Your task to perform on an android device: Search for "macbook pro 13 inch" on ebay.com, select the first entry, add it to the cart, then select checkout. Image 0: 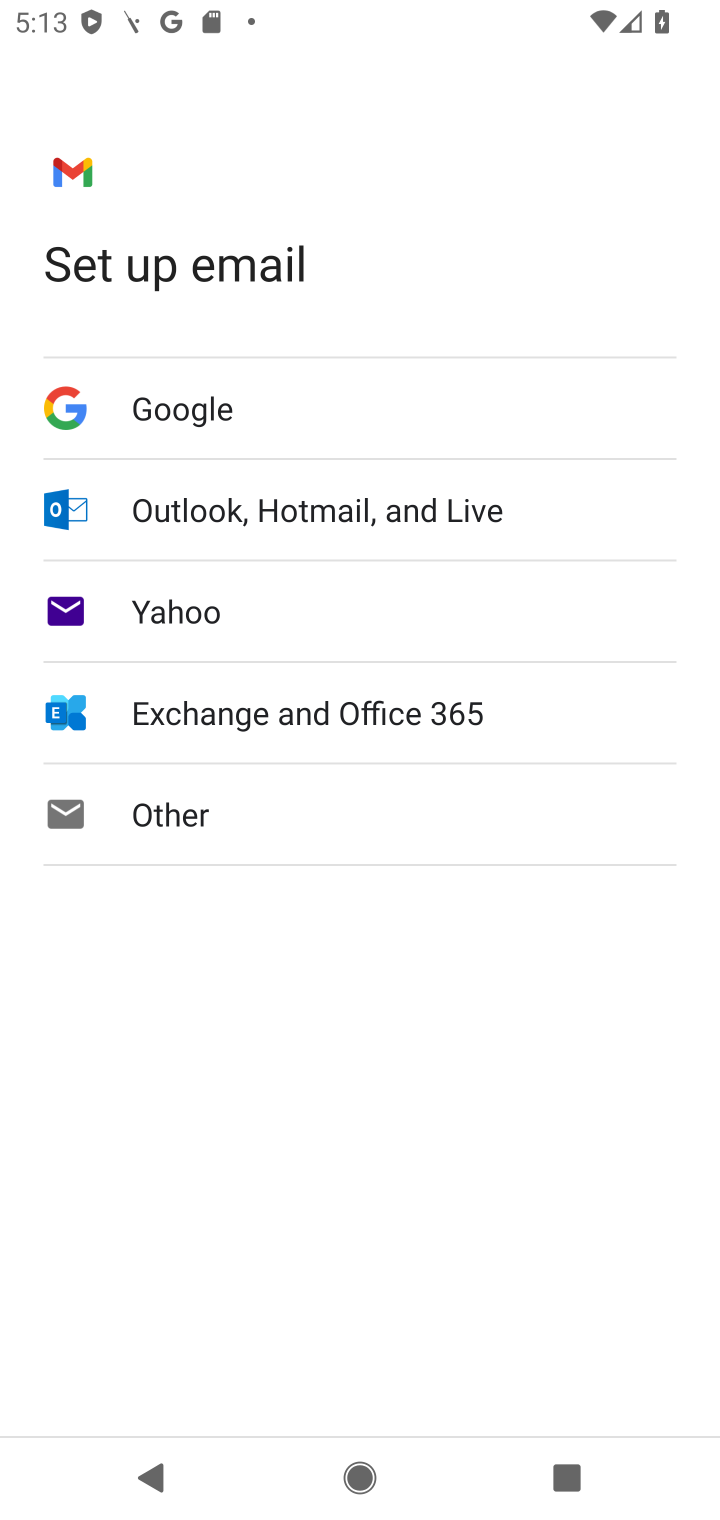
Step 0: press home button
Your task to perform on an android device: Search for "macbook pro 13 inch" on ebay.com, select the first entry, add it to the cart, then select checkout. Image 1: 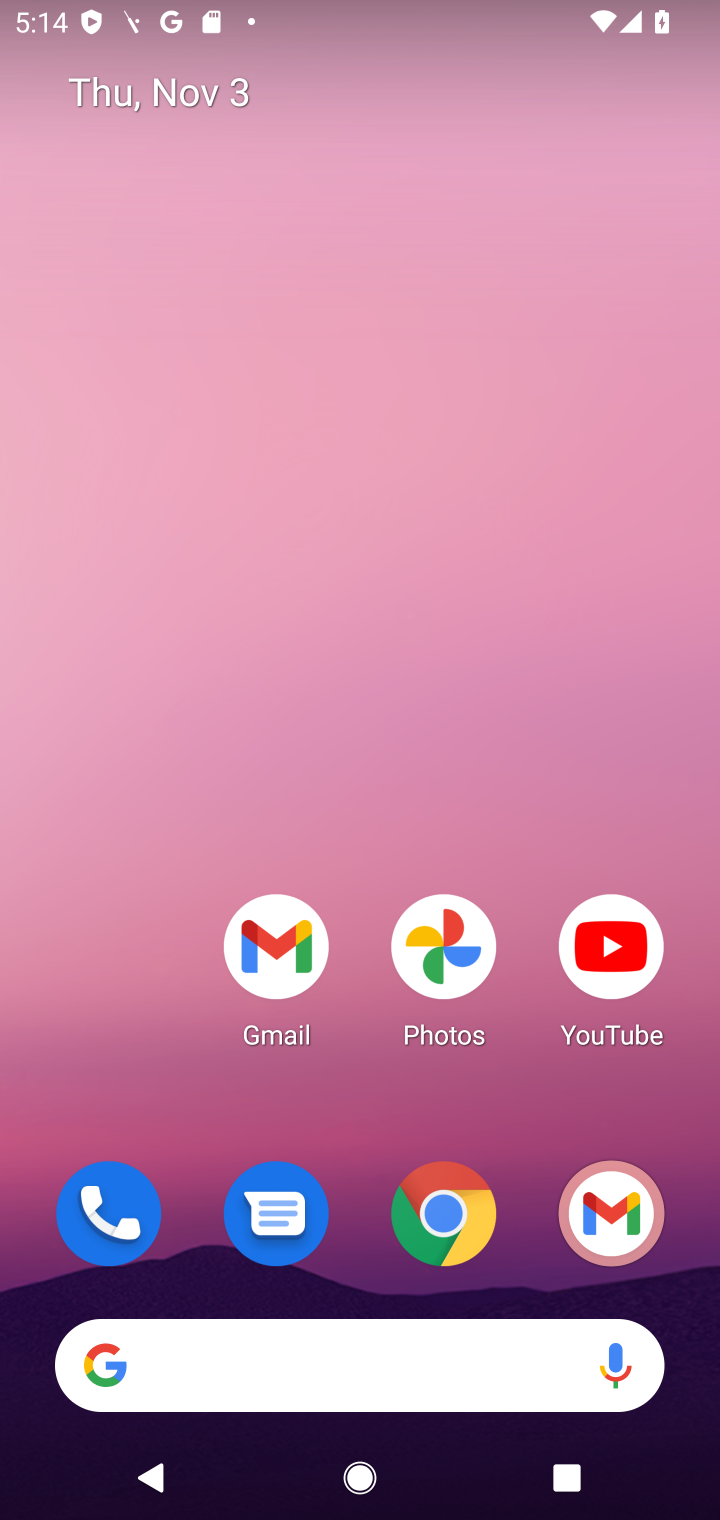
Step 1: click (439, 1205)
Your task to perform on an android device: Search for "macbook pro 13 inch" on ebay.com, select the first entry, add it to the cart, then select checkout. Image 2: 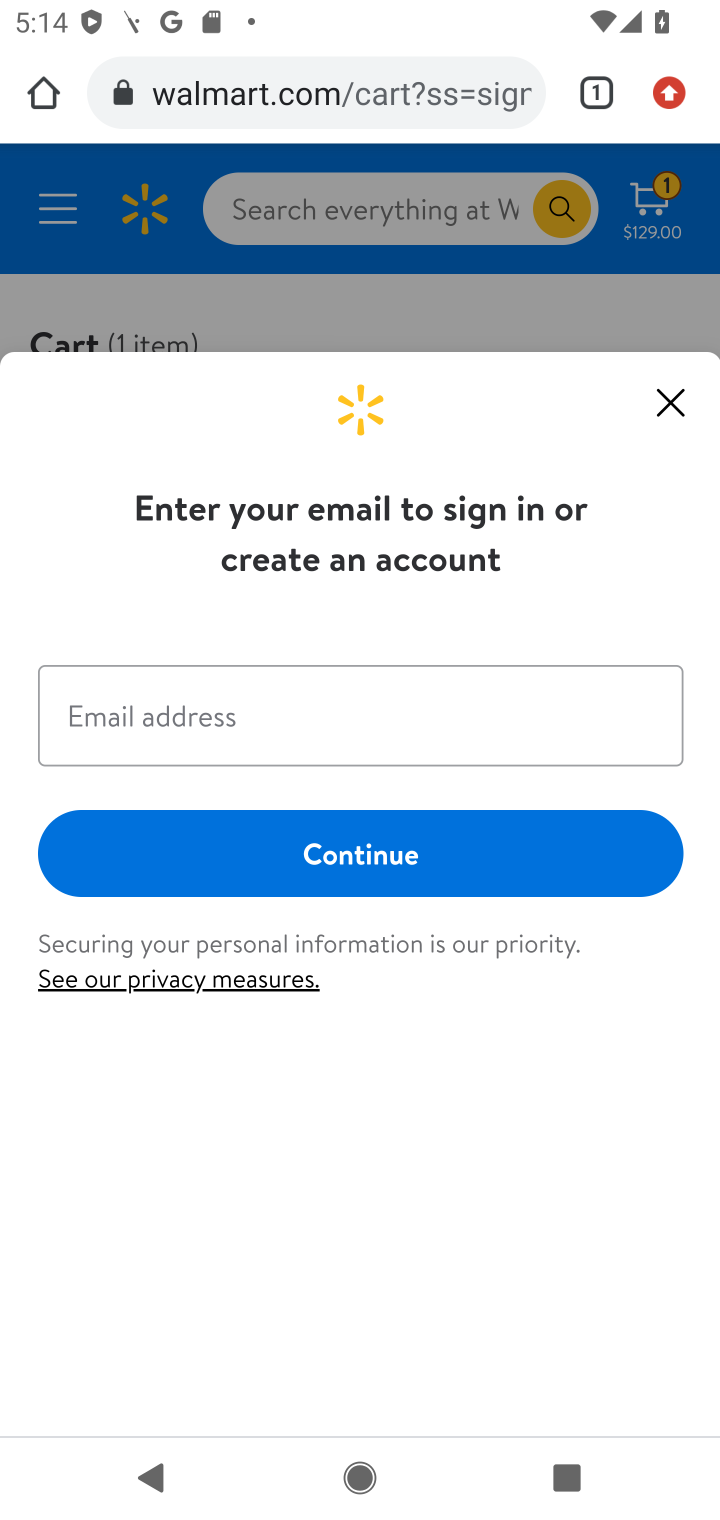
Step 2: click (323, 103)
Your task to perform on an android device: Search for "macbook pro 13 inch" on ebay.com, select the first entry, add it to the cart, then select checkout. Image 3: 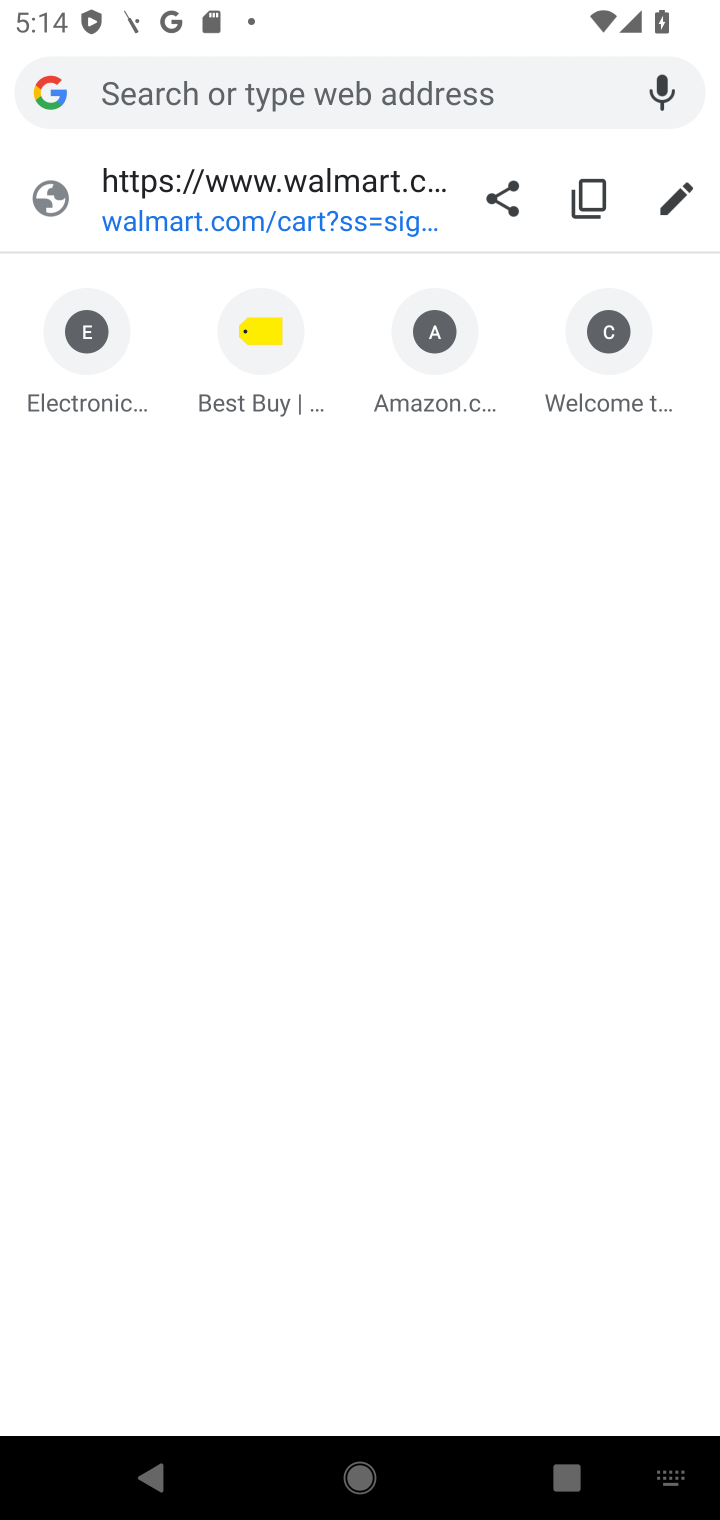
Step 3: type "ebay.com"
Your task to perform on an android device: Search for "macbook pro 13 inch" on ebay.com, select the first entry, add it to the cart, then select checkout. Image 4: 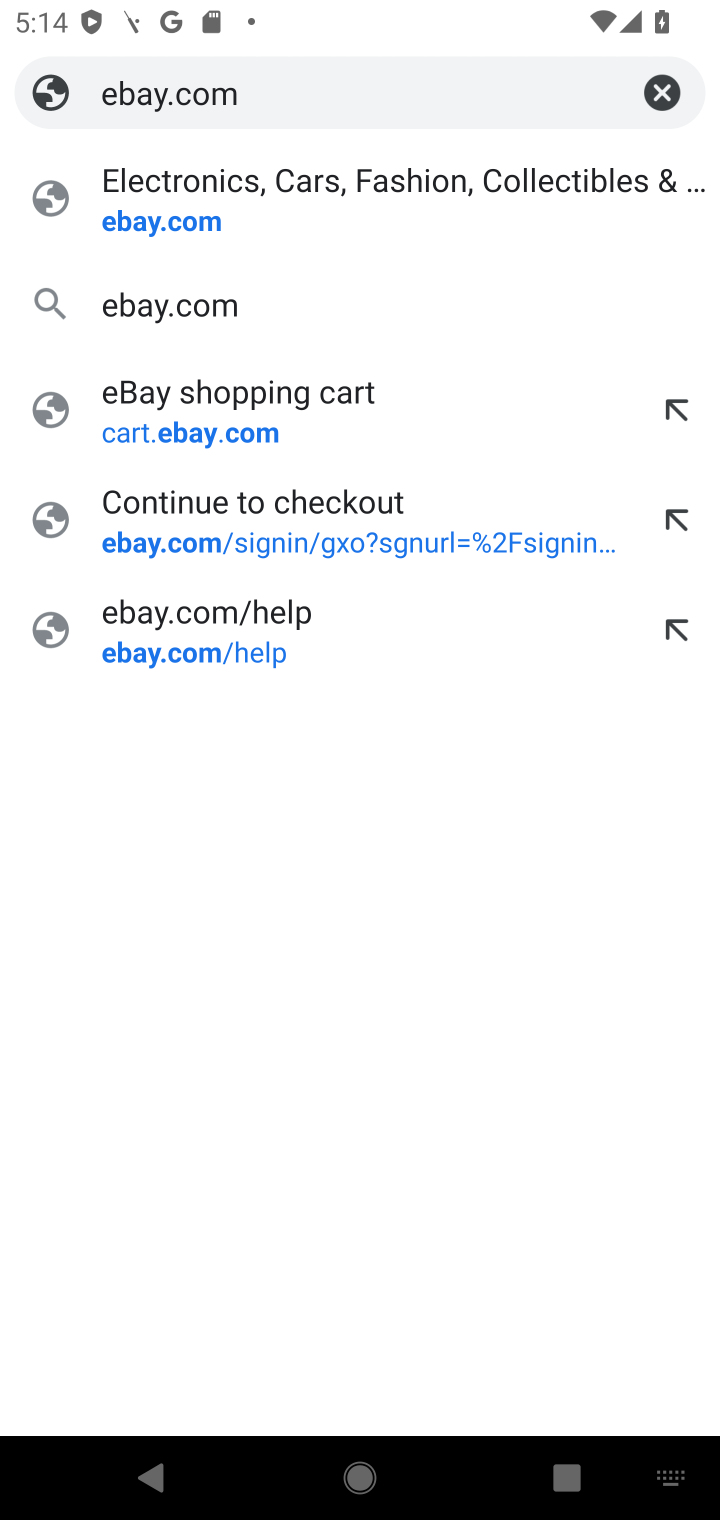
Step 4: click (155, 216)
Your task to perform on an android device: Search for "macbook pro 13 inch" on ebay.com, select the first entry, add it to the cart, then select checkout. Image 5: 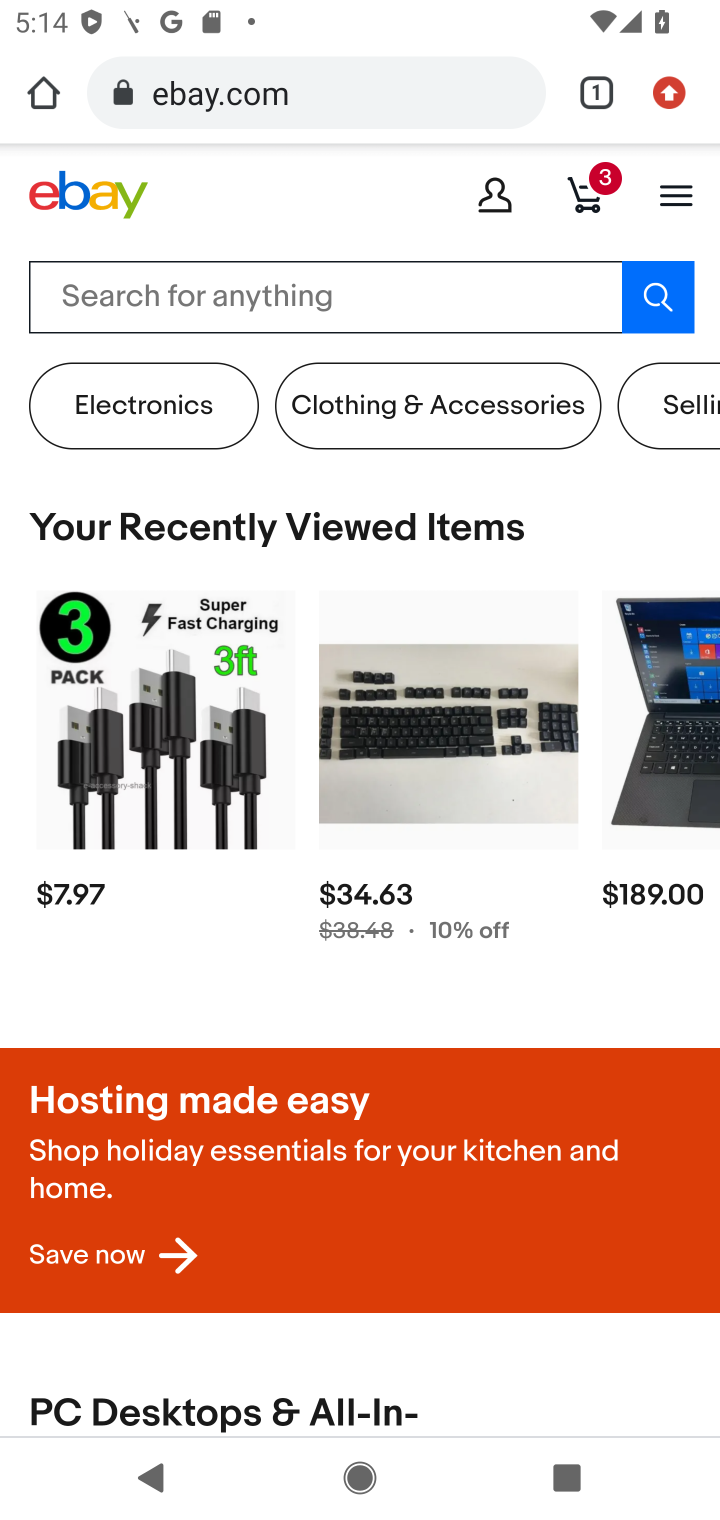
Step 5: click (183, 299)
Your task to perform on an android device: Search for "macbook pro 13 inch" on ebay.com, select the first entry, add it to the cart, then select checkout. Image 6: 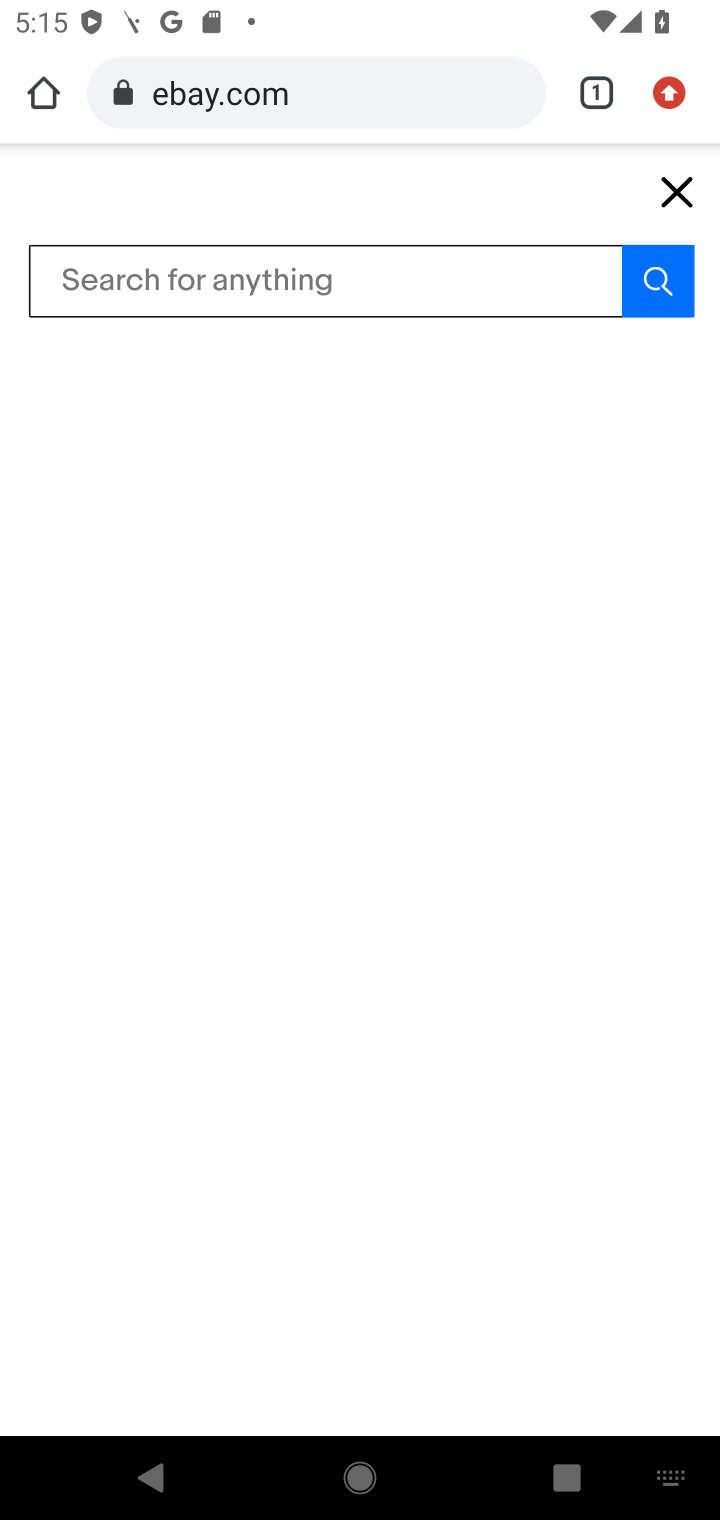
Step 6: type "macbook pro 13 inch"
Your task to perform on an android device: Search for "macbook pro 13 inch" on ebay.com, select the first entry, add it to the cart, then select checkout. Image 7: 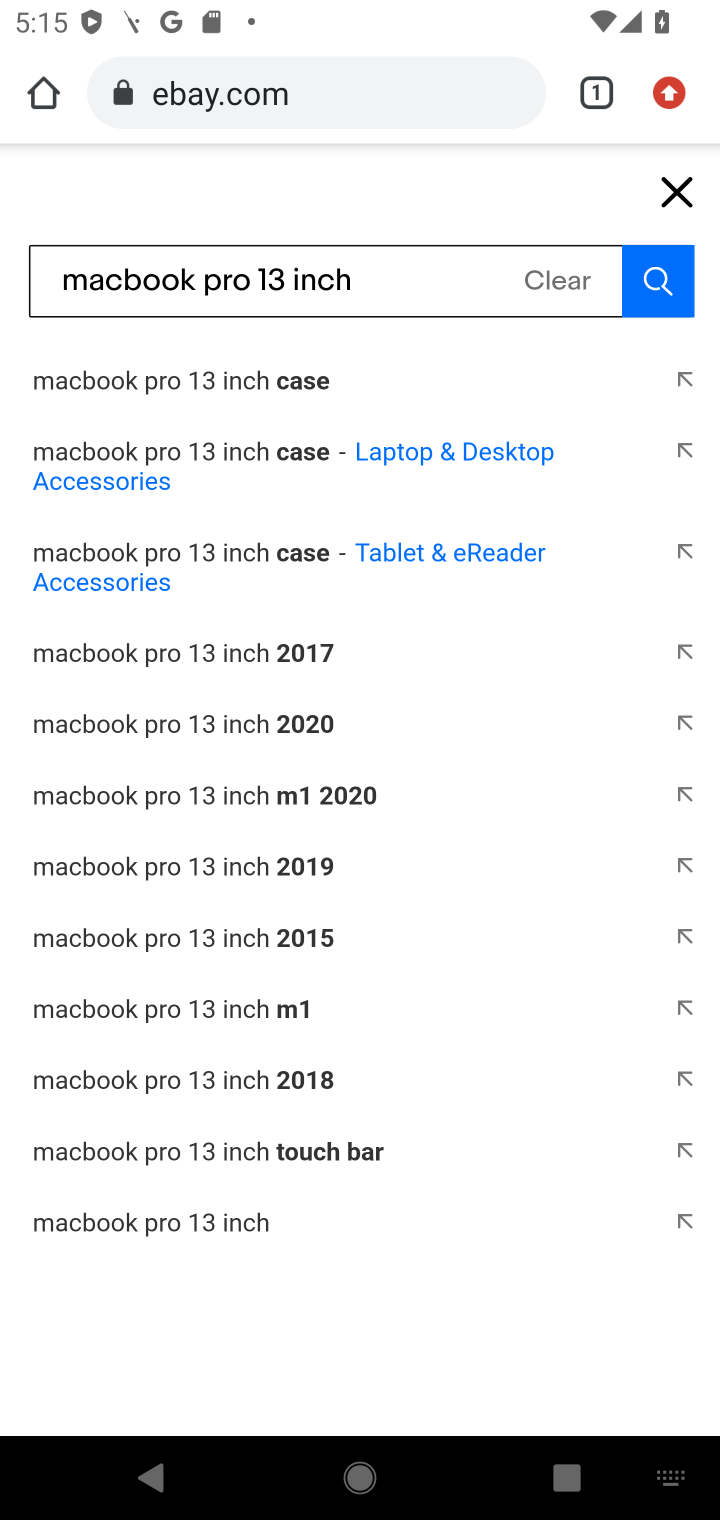
Step 7: click (658, 272)
Your task to perform on an android device: Search for "macbook pro 13 inch" on ebay.com, select the first entry, add it to the cart, then select checkout. Image 8: 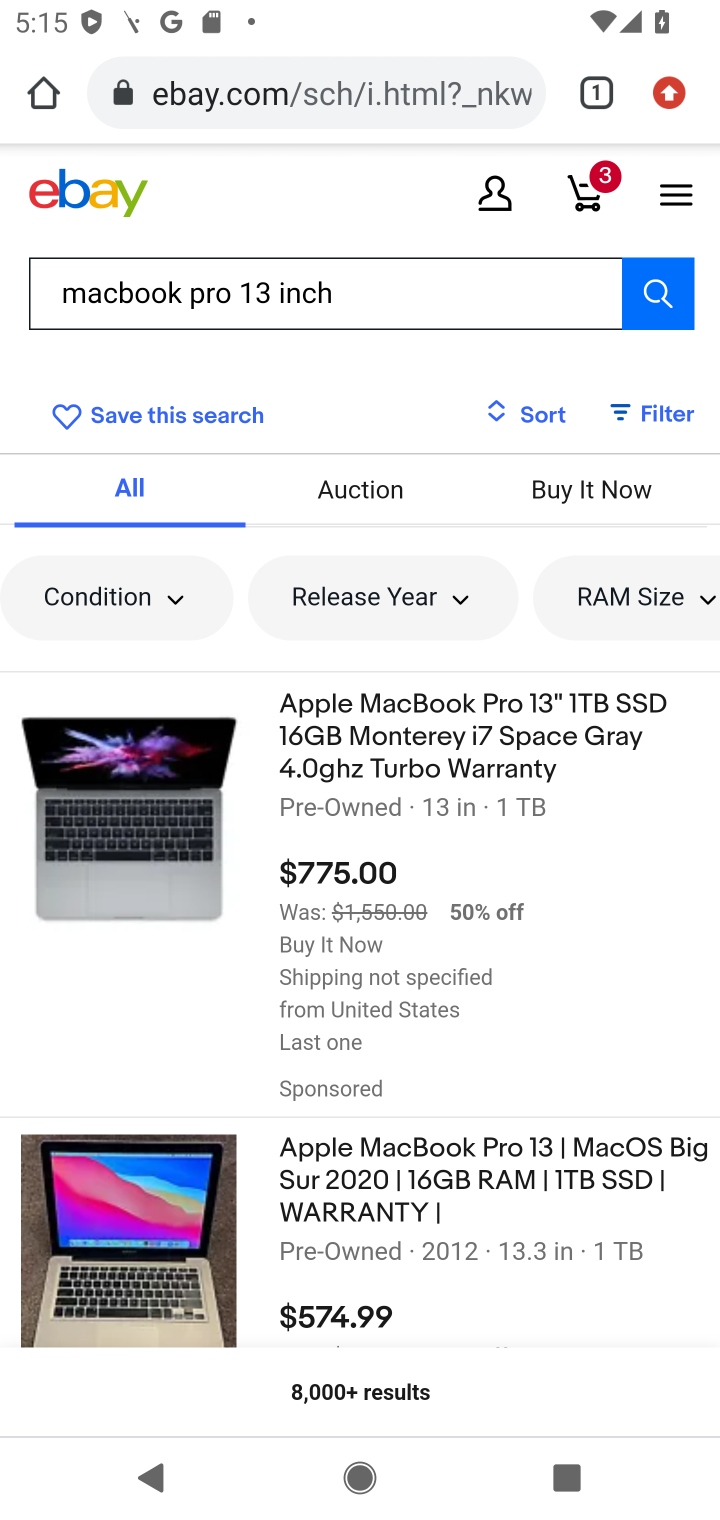
Step 8: click (294, 855)
Your task to perform on an android device: Search for "macbook pro 13 inch" on ebay.com, select the first entry, add it to the cart, then select checkout. Image 9: 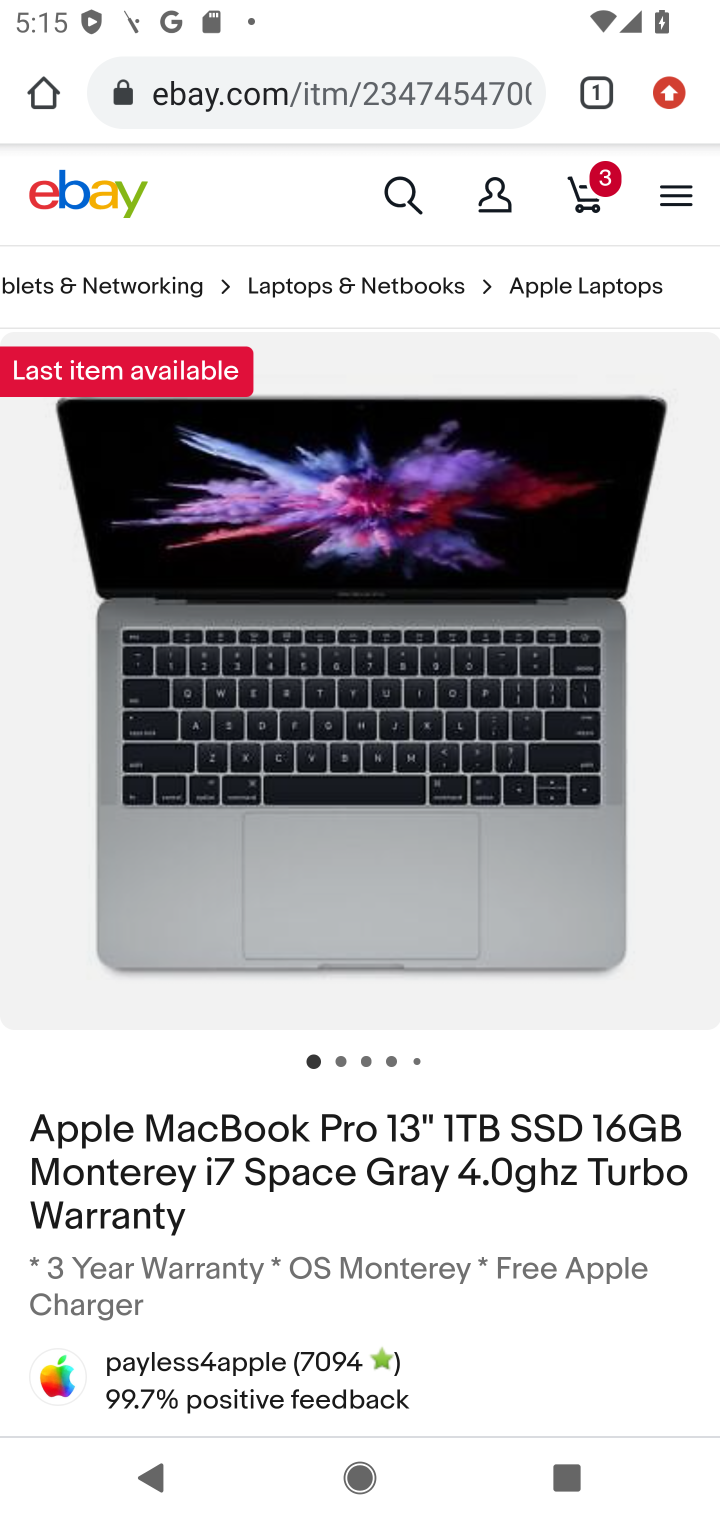
Step 9: drag from (341, 1041) to (356, 463)
Your task to perform on an android device: Search for "macbook pro 13 inch" on ebay.com, select the first entry, add it to the cart, then select checkout. Image 10: 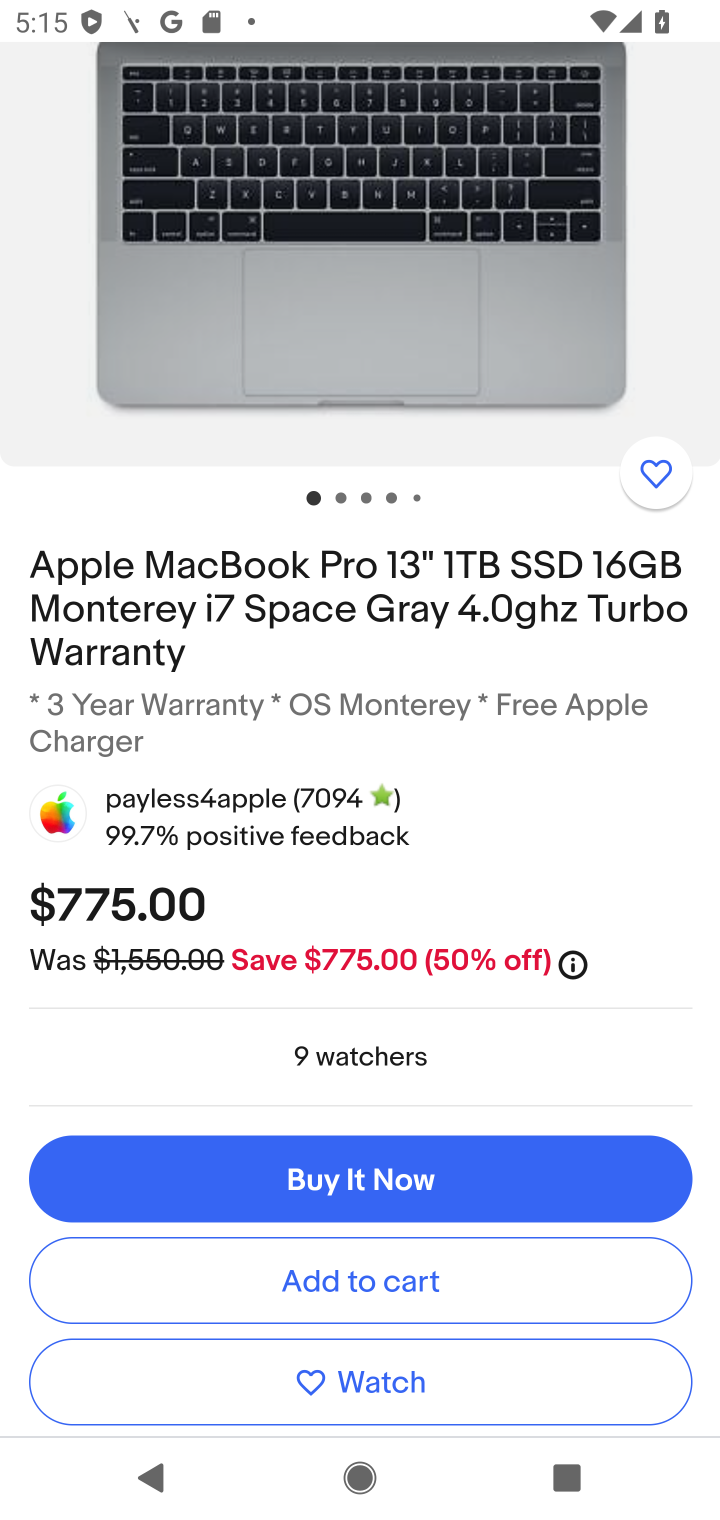
Step 10: click (328, 1273)
Your task to perform on an android device: Search for "macbook pro 13 inch" on ebay.com, select the first entry, add it to the cart, then select checkout. Image 11: 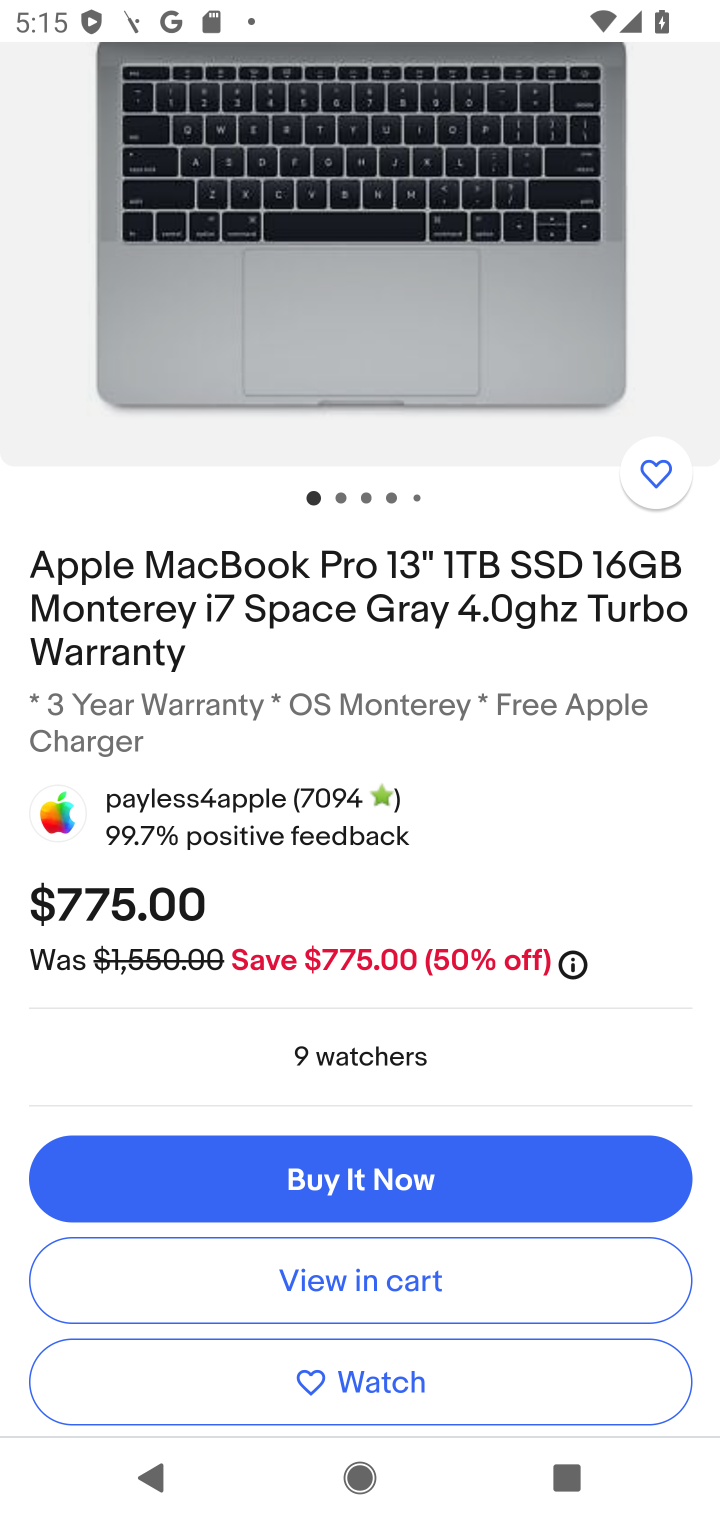
Step 11: click (328, 1273)
Your task to perform on an android device: Search for "macbook pro 13 inch" on ebay.com, select the first entry, add it to the cart, then select checkout. Image 12: 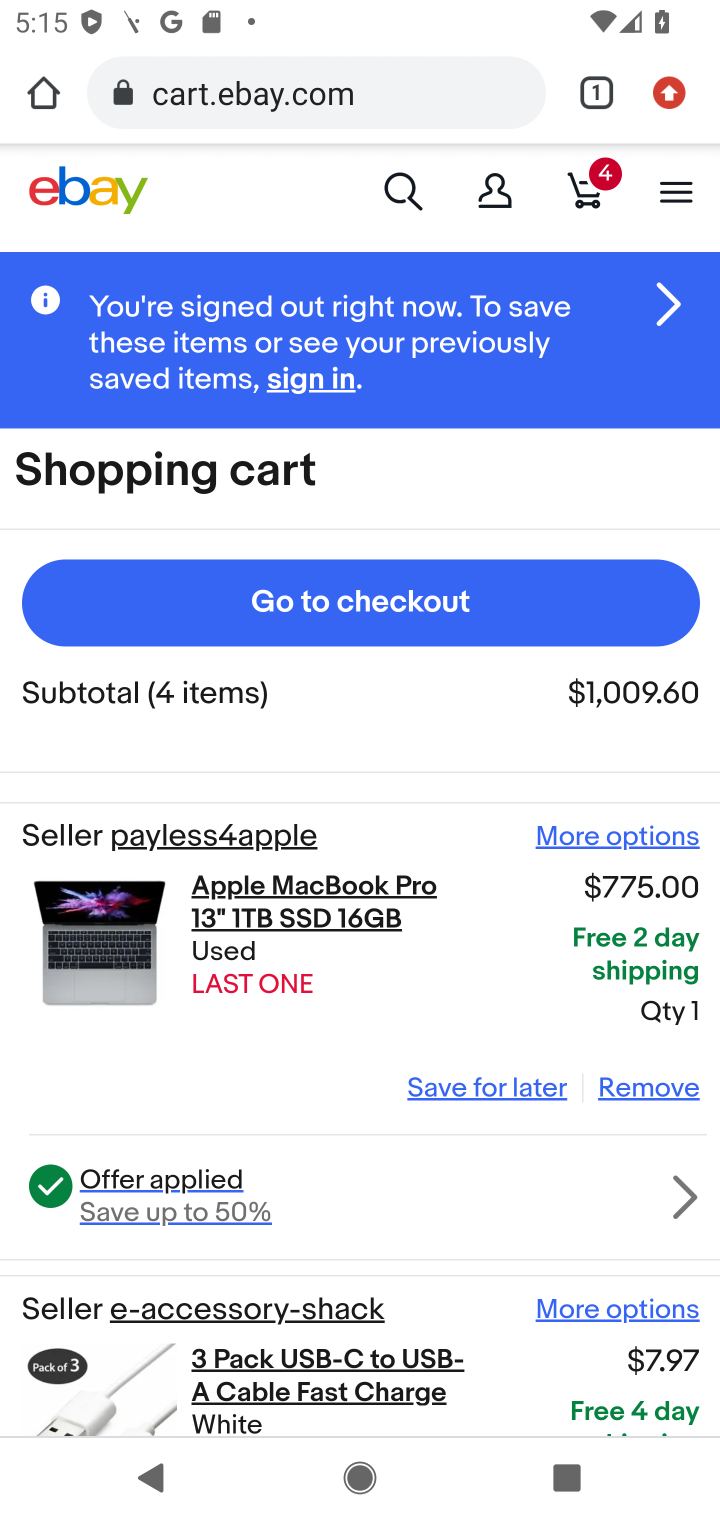
Step 12: click (361, 623)
Your task to perform on an android device: Search for "macbook pro 13 inch" on ebay.com, select the first entry, add it to the cart, then select checkout. Image 13: 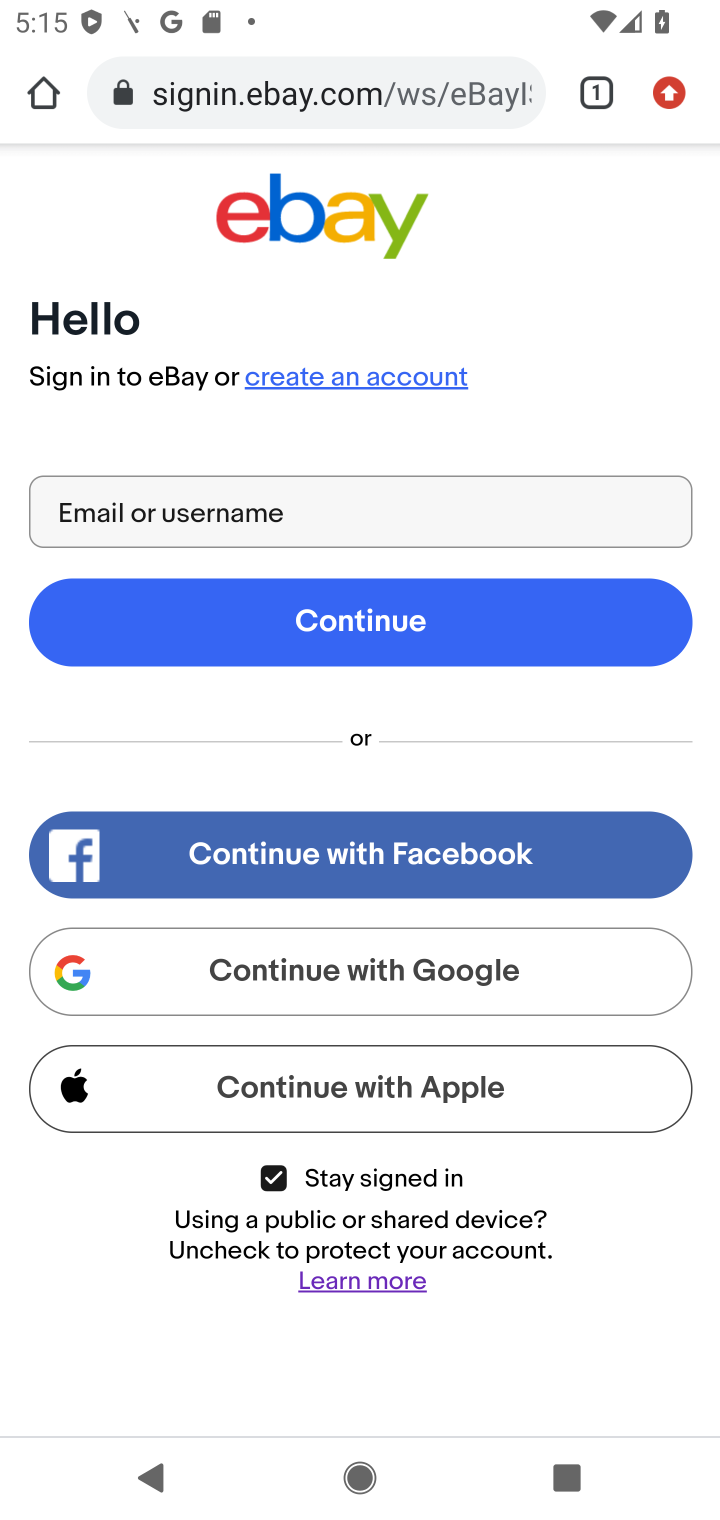
Step 13: task complete